Your task to perform on an android device: Show me productivity apps on the Play Store Image 0: 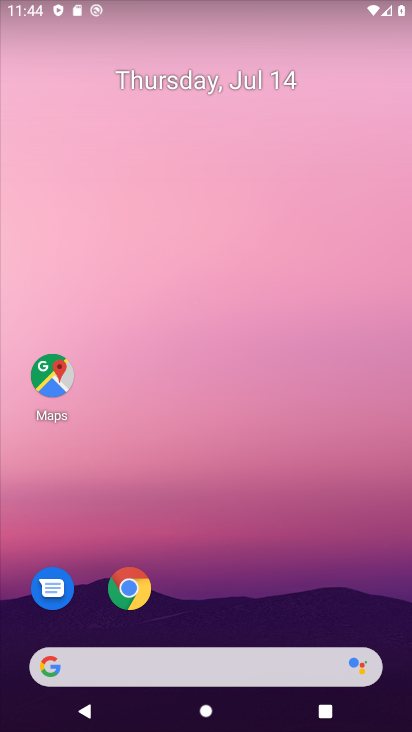
Step 0: drag from (278, 598) to (262, 89)
Your task to perform on an android device: Show me productivity apps on the Play Store Image 1: 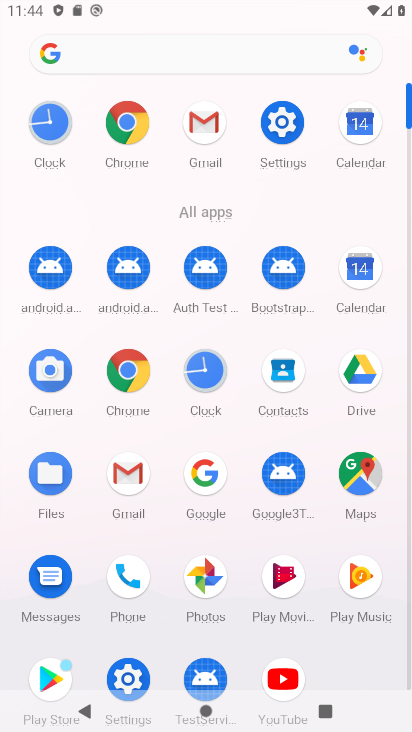
Step 1: click (63, 666)
Your task to perform on an android device: Show me productivity apps on the Play Store Image 2: 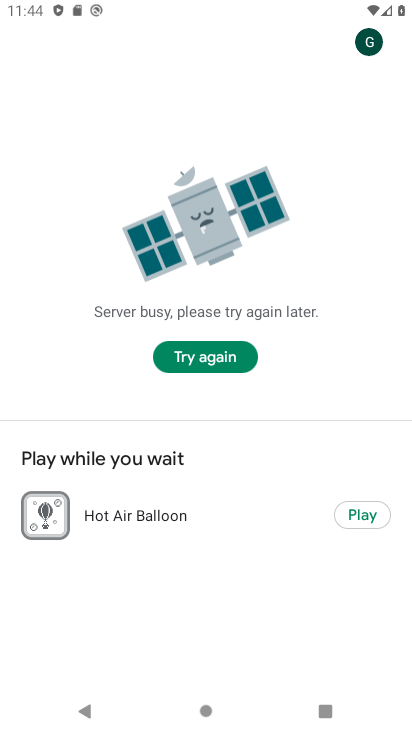
Step 2: click (228, 360)
Your task to perform on an android device: Show me productivity apps on the Play Store Image 3: 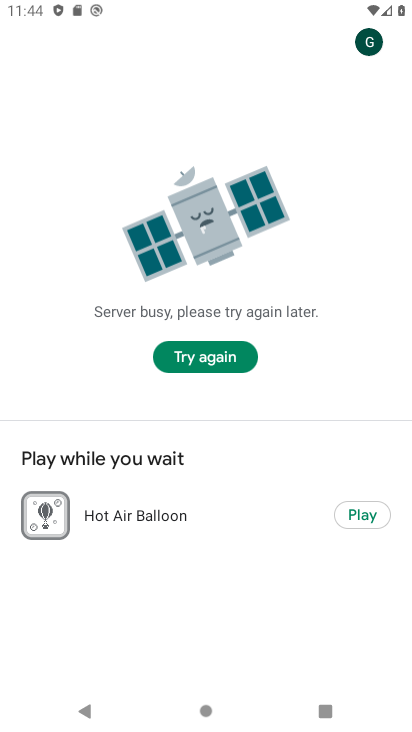
Step 3: task complete